Your task to perform on an android device: change text size in settings app Image 0: 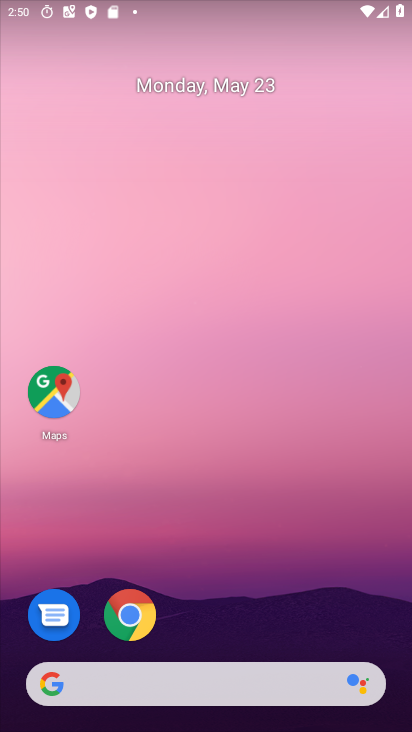
Step 0: drag from (277, 655) to (316, 6)
Your task to perform on an android device: change text size in settings app Image 1: 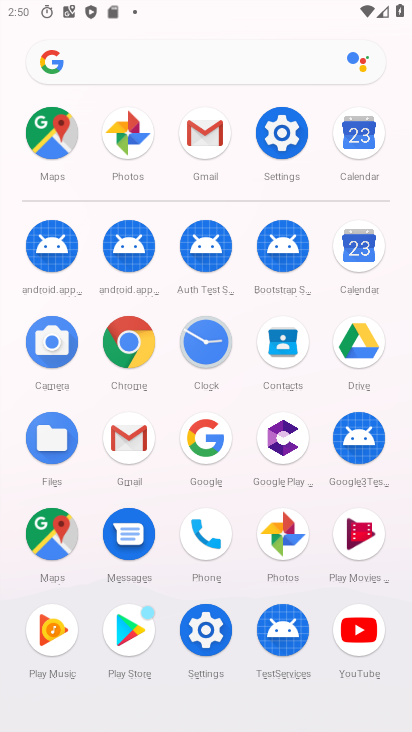
Step 1: click (281, 133)
Your task to perform on an android device: change text size in settings app Image 2: 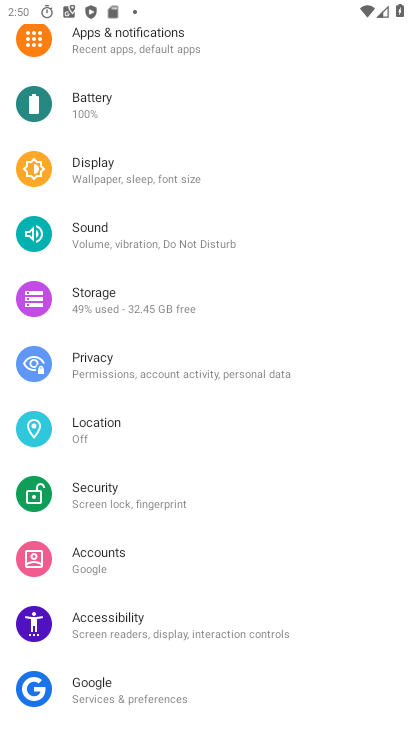
Step 2: click (98, 171)
Your task to perform on an android device: change text size in settings app Image 3: 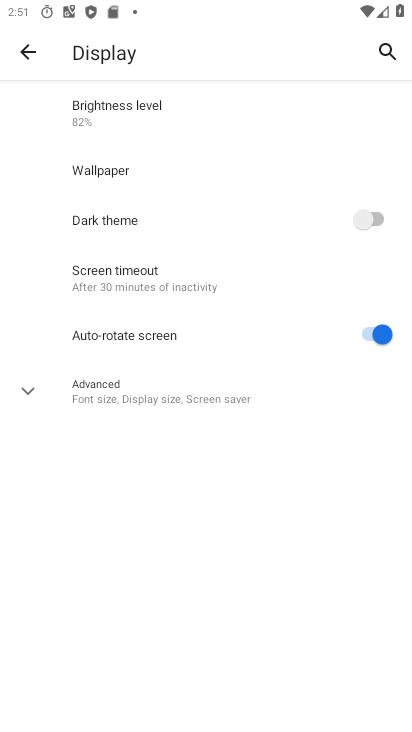
Step 3: click (28, 394)
Your task to perform on an android device: change text size in settings app Image 4: 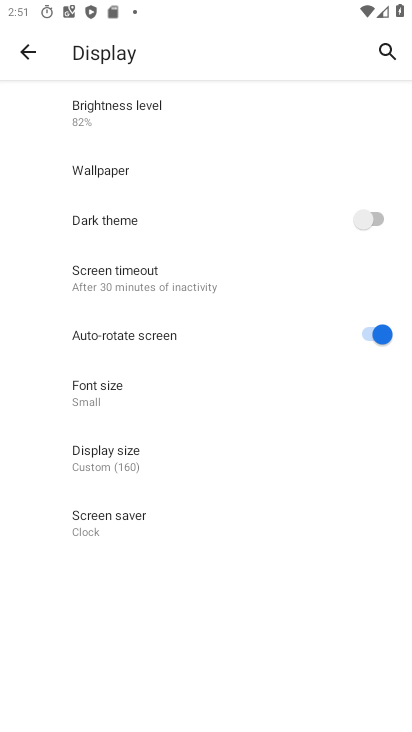
Step 4: click (91, 398)
Your task to perform on an android device: change text size in settings app Image 5: 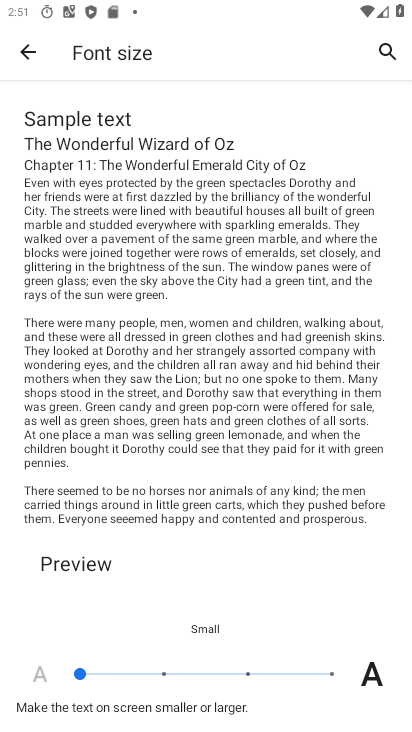
Step 5: click (162, 675)
Your task to perform on an android device: change text size in settings app Image 6: 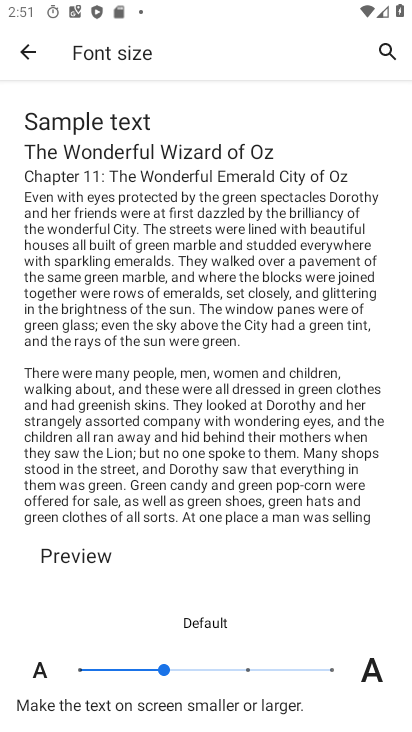
Step 6: task complete